Your task to perform on an android device: toggle translation in the chrome app Image 0: 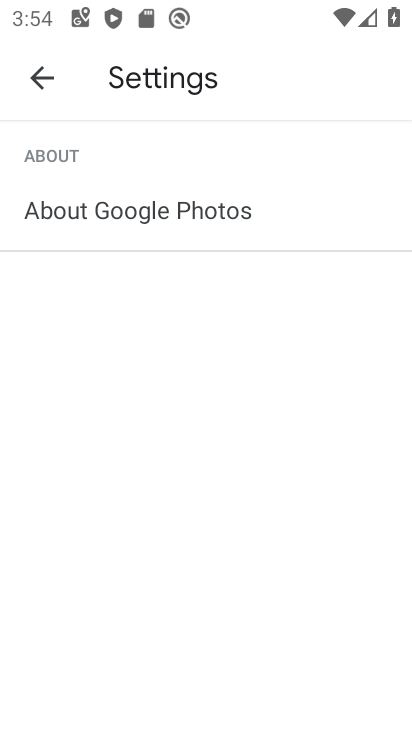
Step 0: click (20, 76)
Your task to perform on an android device: toggle translation in the chrome app Image 1: 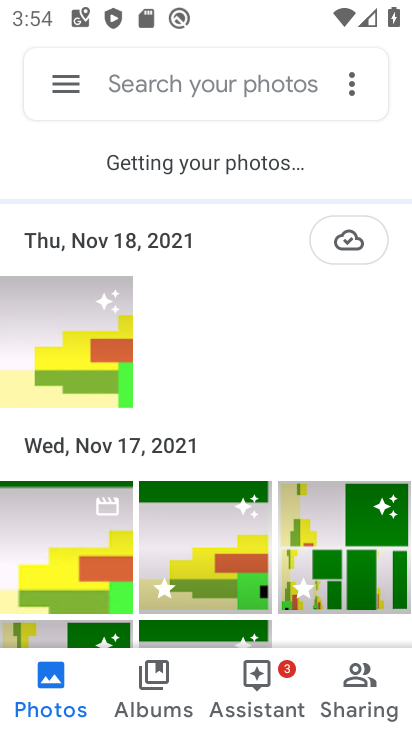
Step 1: press home button
Your task to perform on an android device: toggle translation in the chrome app Image 2: 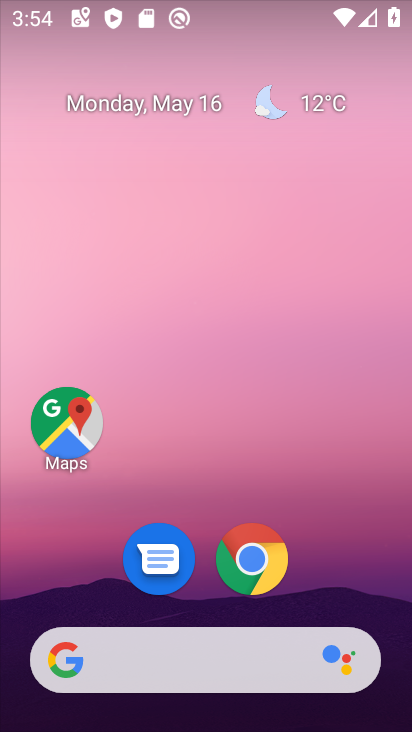
Step 2: drag from (336, 557) to (339, 235)
Your task to perform on an android device: toggle translation in the chrome app Image 3: 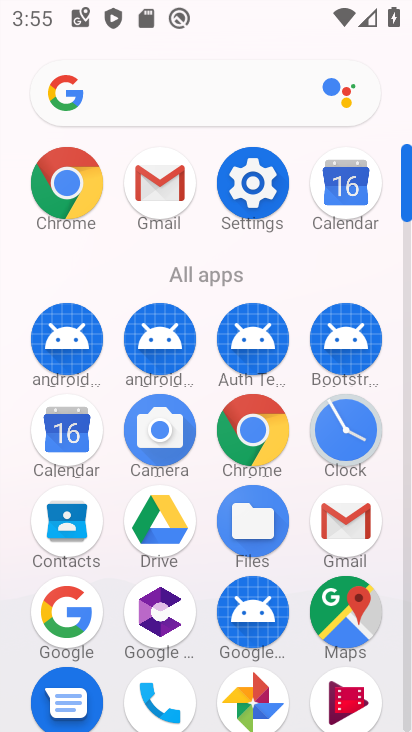
Step 3: click (68, 183)
Your task to perform on an android device: toggle translation in the chrome app Image 4: 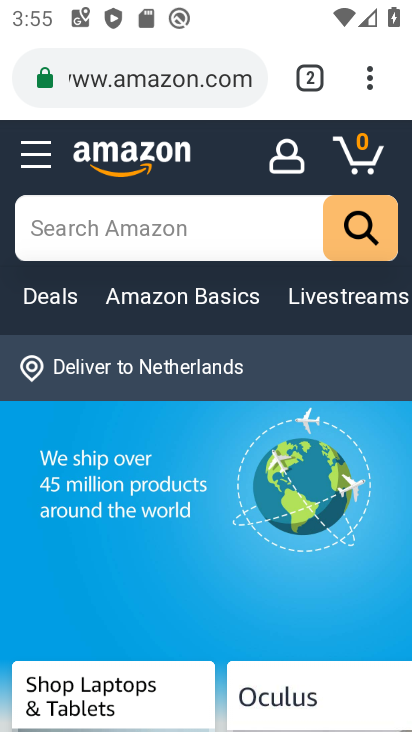
Step 4: click (362, 76)
Your task to perform on an android device: toggle translation in the chrome app Image 5: 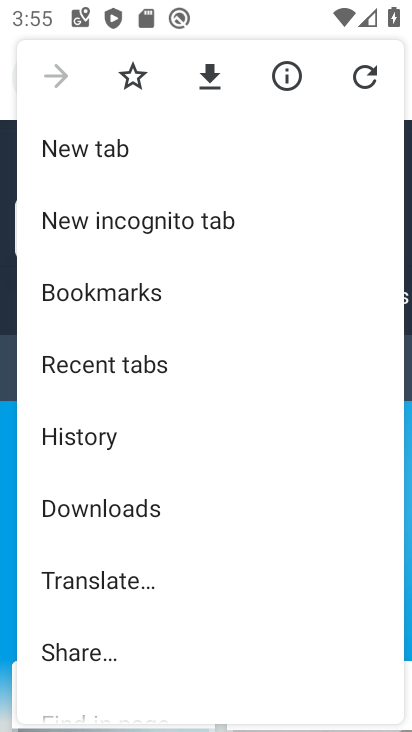
Step 5: drag from (116, 663) to (157, 470)
Your task to perform on an android device: toggle translation in the chrome app Image 6: 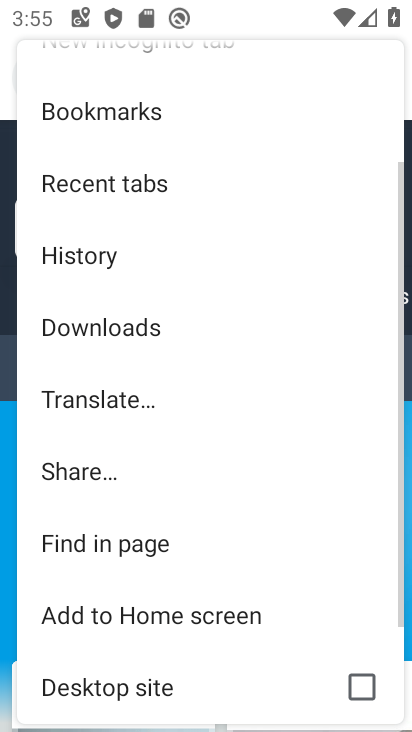
Step 6: drag from (144, 671) to (175, 343)
Your task to perform on an android device: toggle translation in the chrome app Image 7: 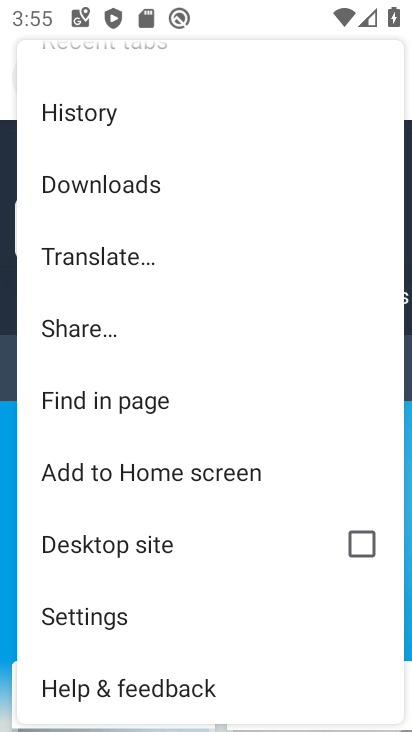
Step 7: click (138, 623)
Your task to perform on an android device: toggle translation in the chrome app Image 8: 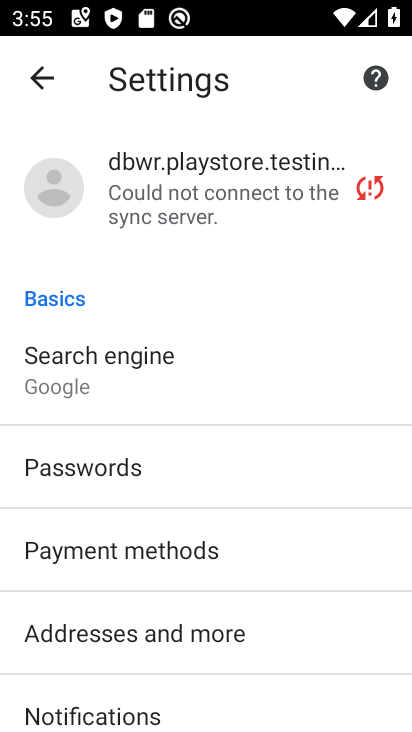
Step 8: drag from (196, 656) to (190, 235)
Your task to perform on an android device: toggle translation in the chrome app Image 9: 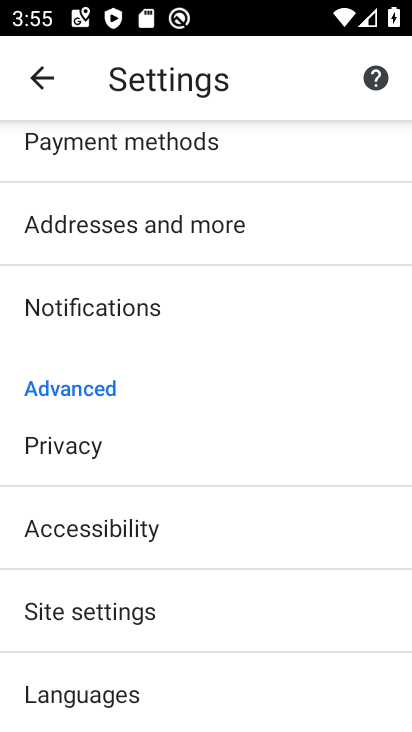
Step 9: drag from (158, 692) to (199, 393)
Your task to perform on an android device: toggle translation in the chrome app Image 10: 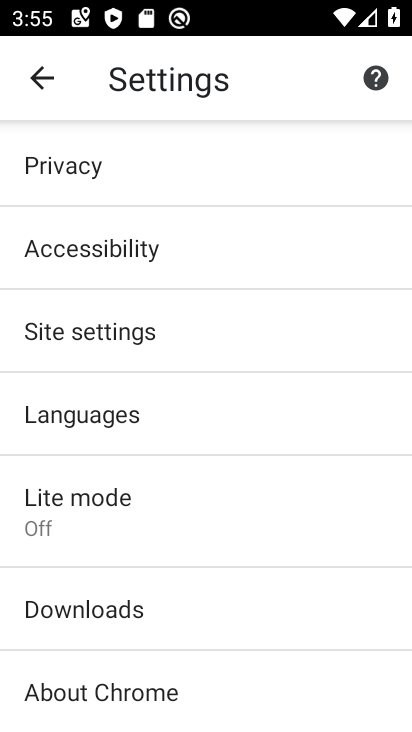
Step 10: click (93, 434)
Your task to perform on an android device: toggle translation in the chrome app Image 11: 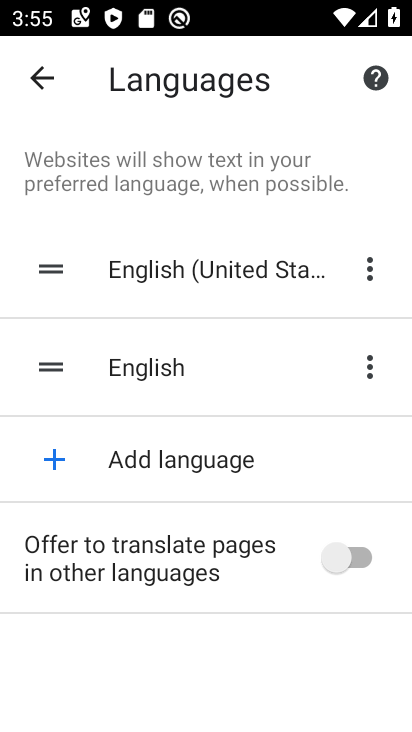
Step 11: click (306, 547)
Your task to perform on an android device: toggle translation in the chrome app Image 12: 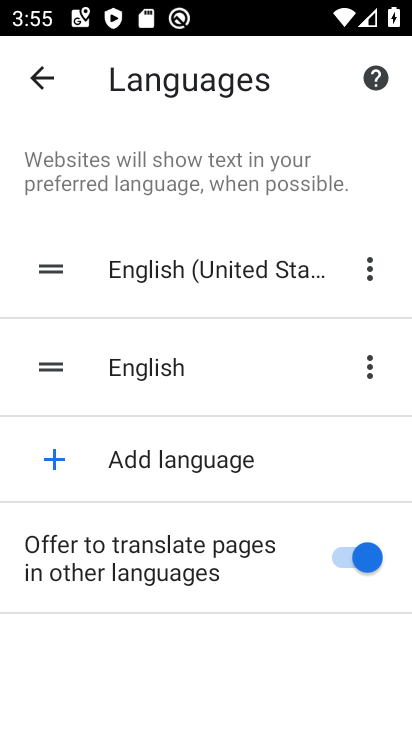
Step 12: task complete